Your task to perform on an android device: Show me productivity apps on the Play Store Image 0: 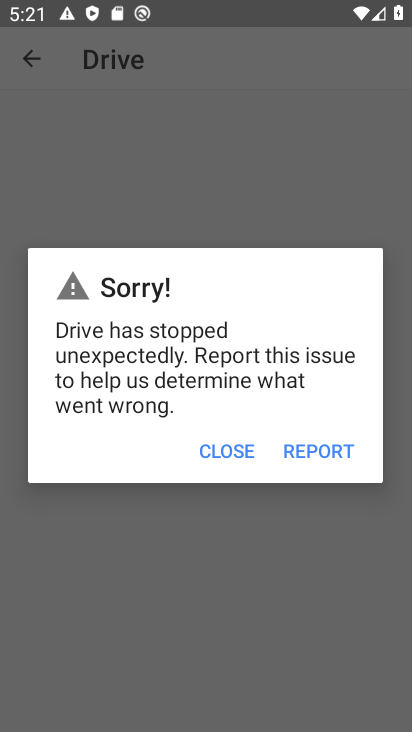
Step 0: press home button
Your task to perform on an android device: Show me productivity apps on the Play Store Image 1: 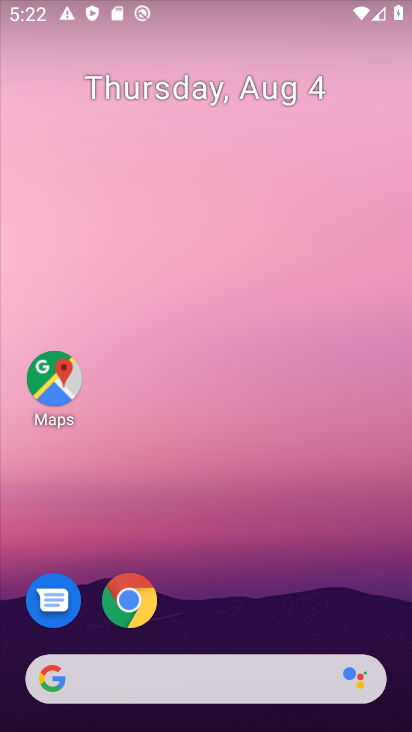
Step 1: drag from (222, 515) to (287, 3)
Your task to perform on an android device: Show me productivity apps on the Play Store Image 2: 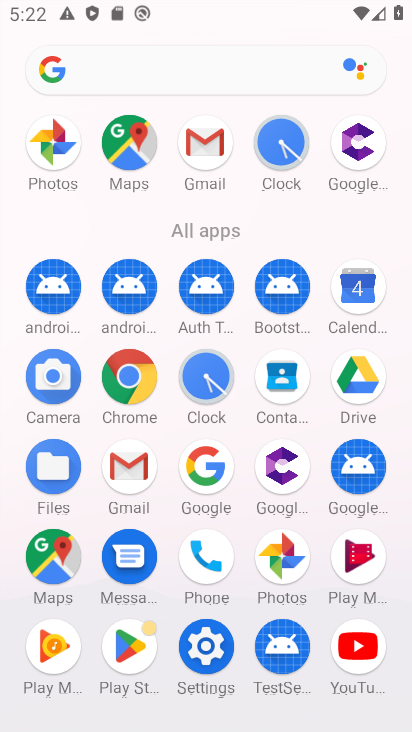
Step 2: click (133, 641)
Your task to perform on an android device: Show me productivity apps on the Play Store Image 3: 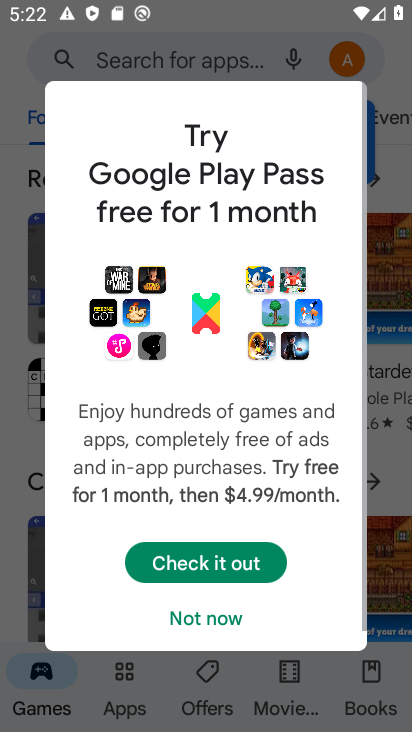
Step 3: click (206, 613)
Your task to perform on an android device: Show me productivity apps on the Play Store Image 4: 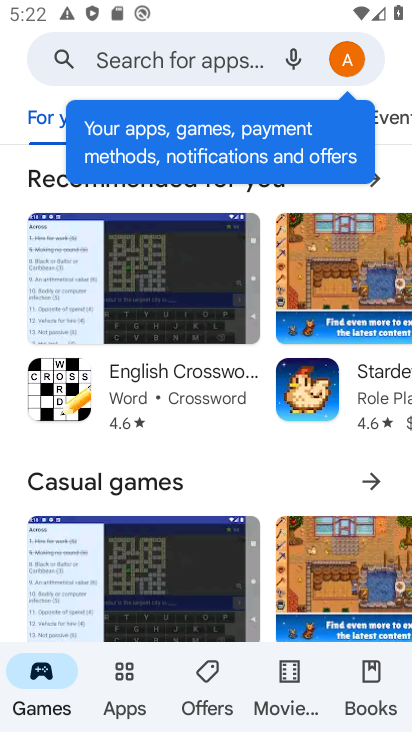
Step 4: click (134, 686)
Your task to perform on an android device: Show me productivity apps on the Play Store Image 5: 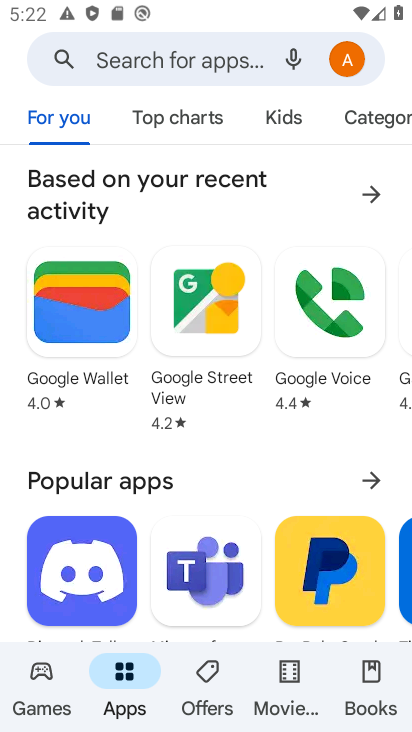
Step 5: drag from (6, 616) to (28, 148)
Your task to perform on an android device: Show me productivity apps on the Play Store Image 6: 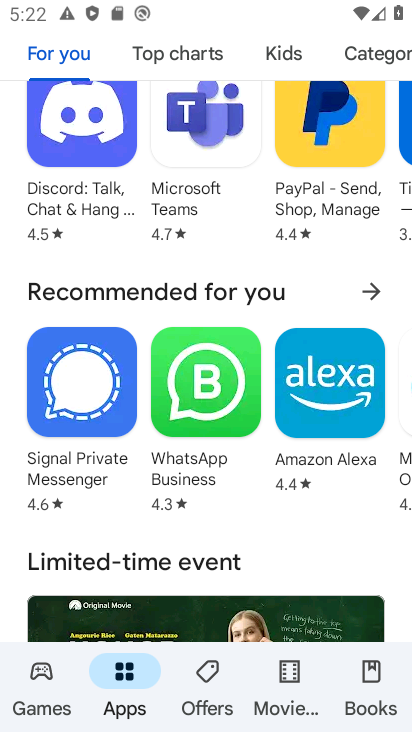
Step 6: drag from (4, 626) to (69, 257)
Your task to perform on an android device: Show me productivity apps on the Play Store Image 7: 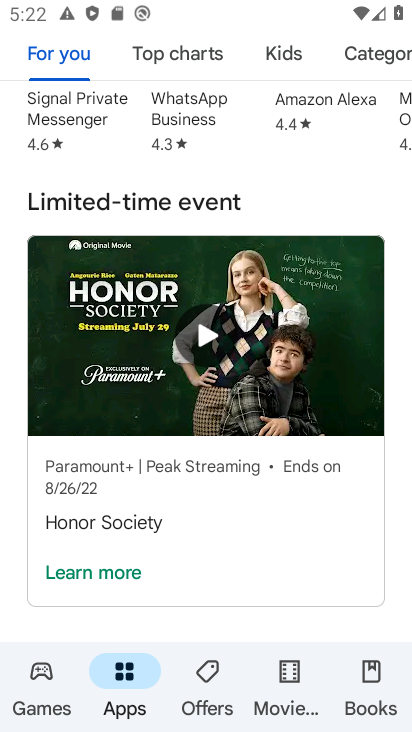
Step 7: drag from (15, 614) to (29, 128)
Your task to perform on an android device: Show me productivity apps on the Play Store Image 8: 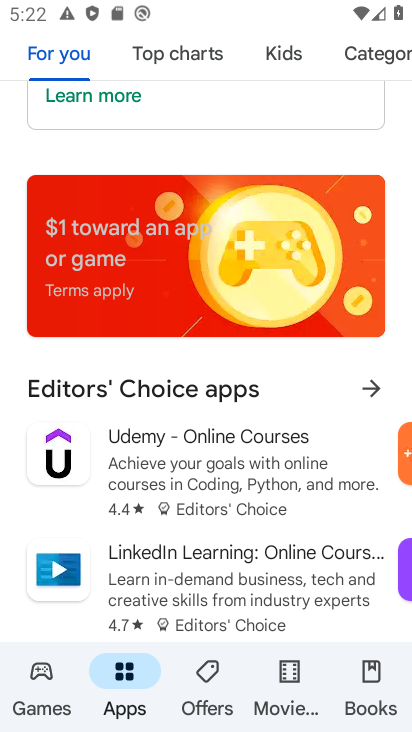
Step 8: drag from (7, 580) to (31, 44)
Your task to perform on an android device: Show me productivity apps on the Play Store Image 9: 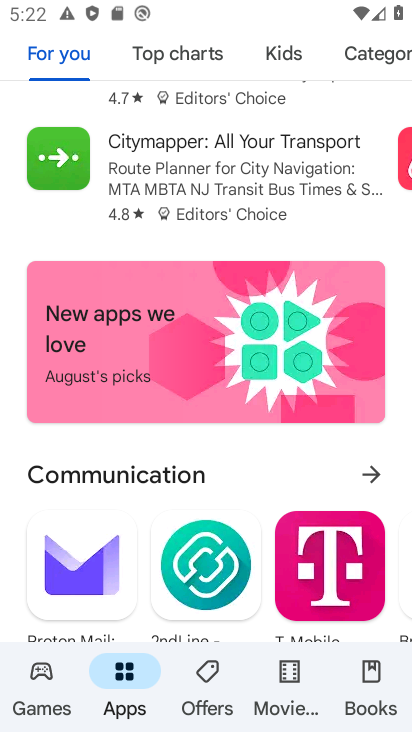
Step 9: drag from (15, 618) to (8, 57)
Your task to perform on an android device: Show me productivity apps on the Play Store Image 10: 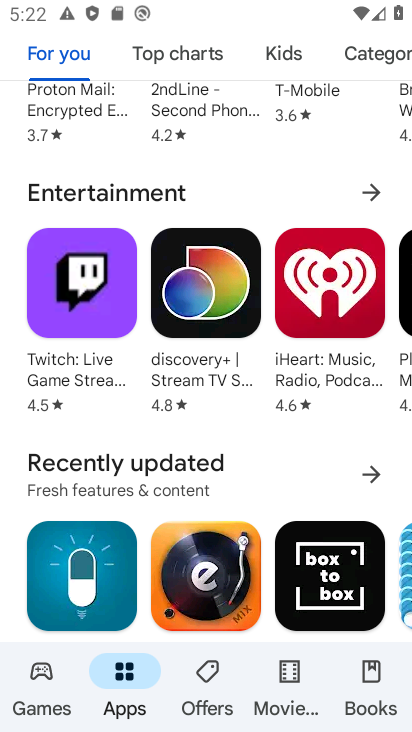
Step 10: drag from (5, 553) to (47, 119)
Your task to perform on an android device: Show me productivity apps on the Play Store Image 11: 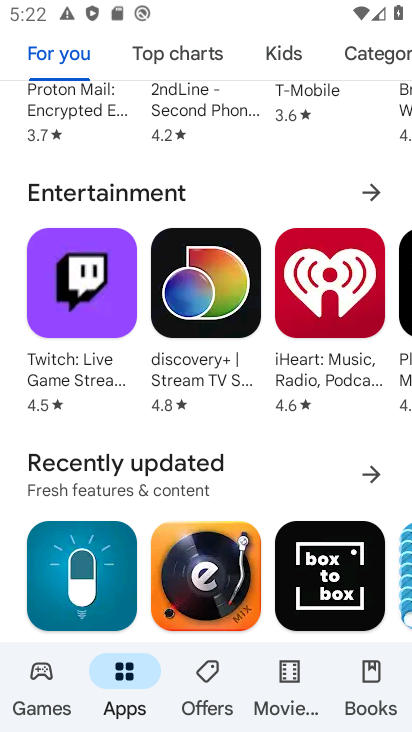
Step 11: drag from (7, 502) to (52, 64)
Your task to perform on an android device: Show me productivity apps on the Play Store Image 12: 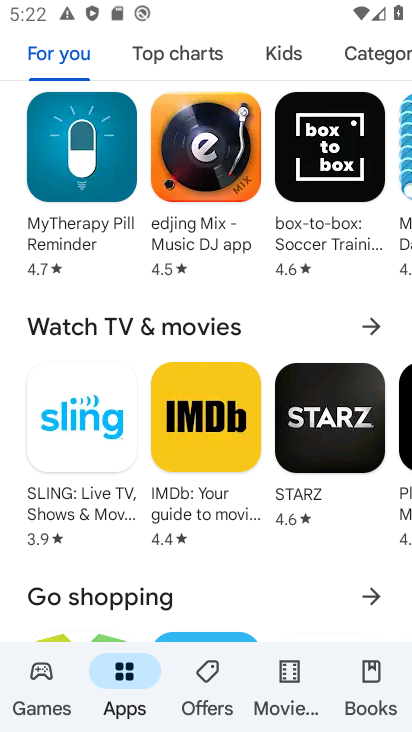
Step 12: drag from (19, 572) to (32, 163)
Your task to perform on an android device: Show me productivity apps on the Play Store Image 13: 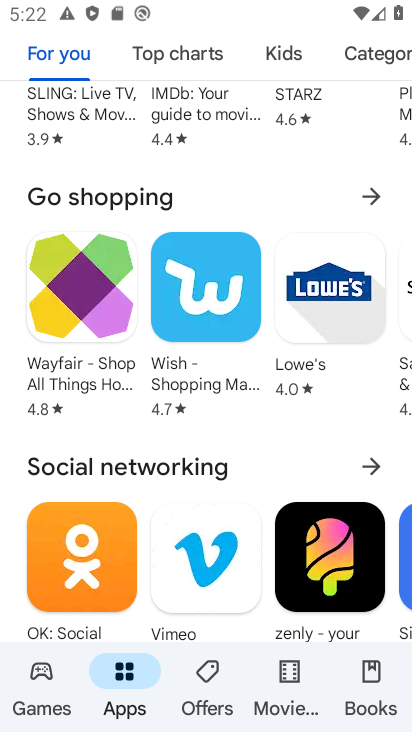
Step 13: drag from (6, 545) to (0, 600)
Your task to perform on an android device: Show me productivity apps on the Play Store Image 14: 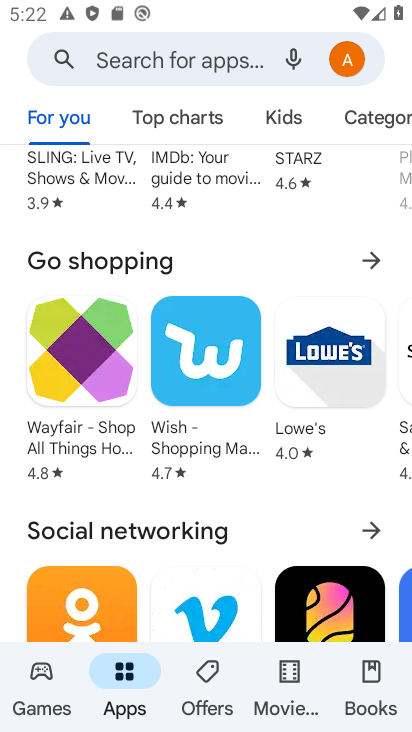
Step 14: drag from (16, 552) to (19, 148)
Your task to perform on an android device: Show me productivity apps on the Play Store Image 15: 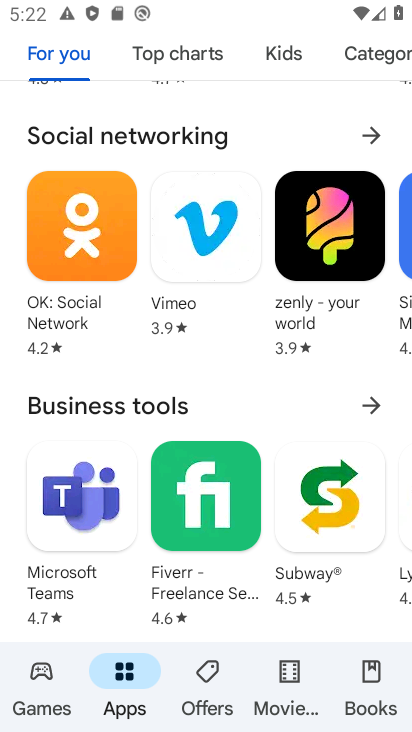
Step 15: drag from (8, 594) to (38, 190)
Your task to perform on an android device: Show me productivity apps on the Play Store Image 16: 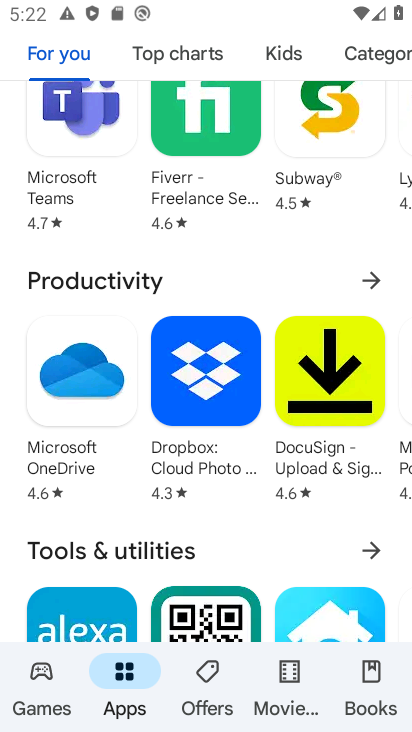
Step 16: click (375, 277)
Your task to perform on an android device: Show me productivity apps on the Play Store Image 17: 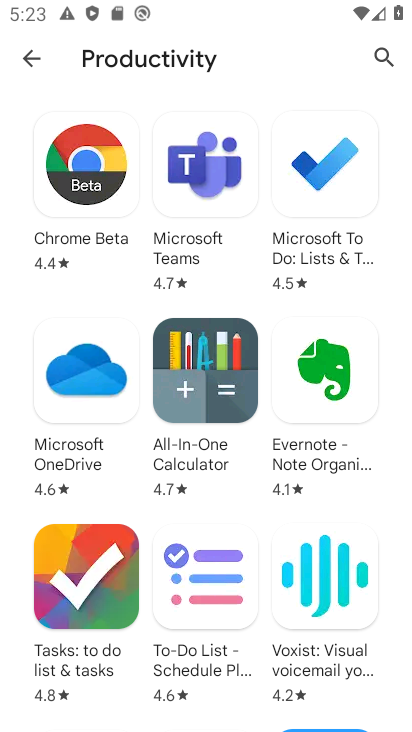
Step 17: task complete